Your task to perform on an android device: delete browsing data in the chrome app Image 0: 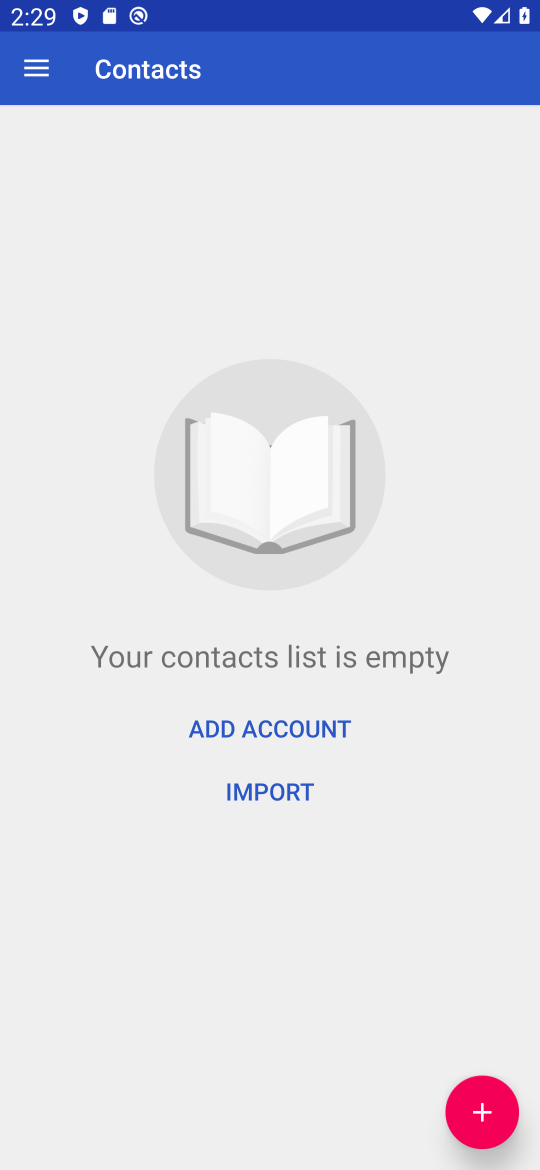
Step 0: press home button
Your task to perform on an android device: delete browsing data in the chrome app Image 1: 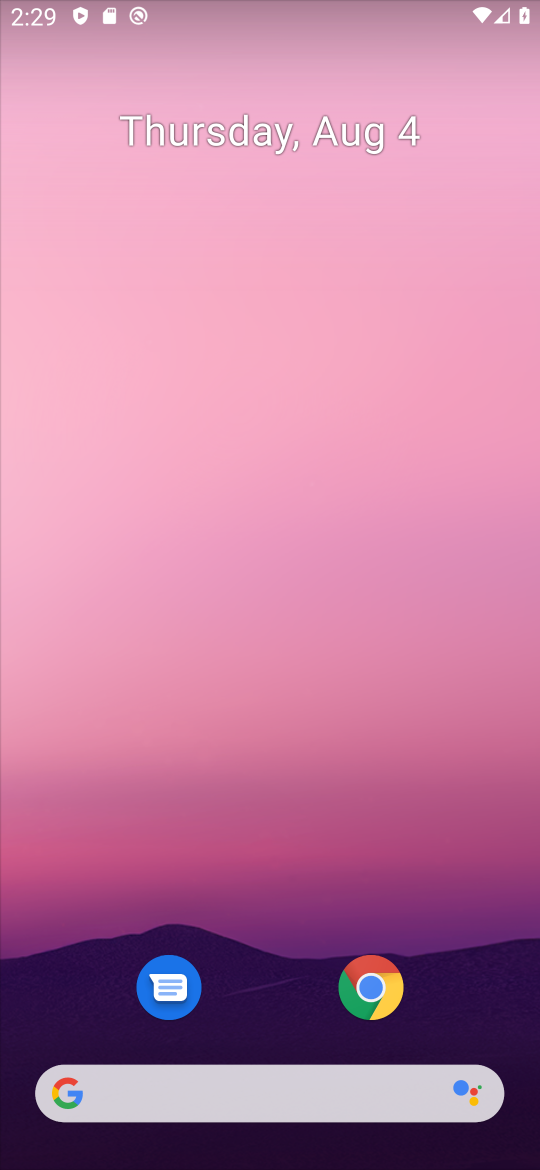
Step 1: drag from (499, 1009) to (190, 31)
Your task to perform on an android device: delete browsing data in the chrome app Image 2: 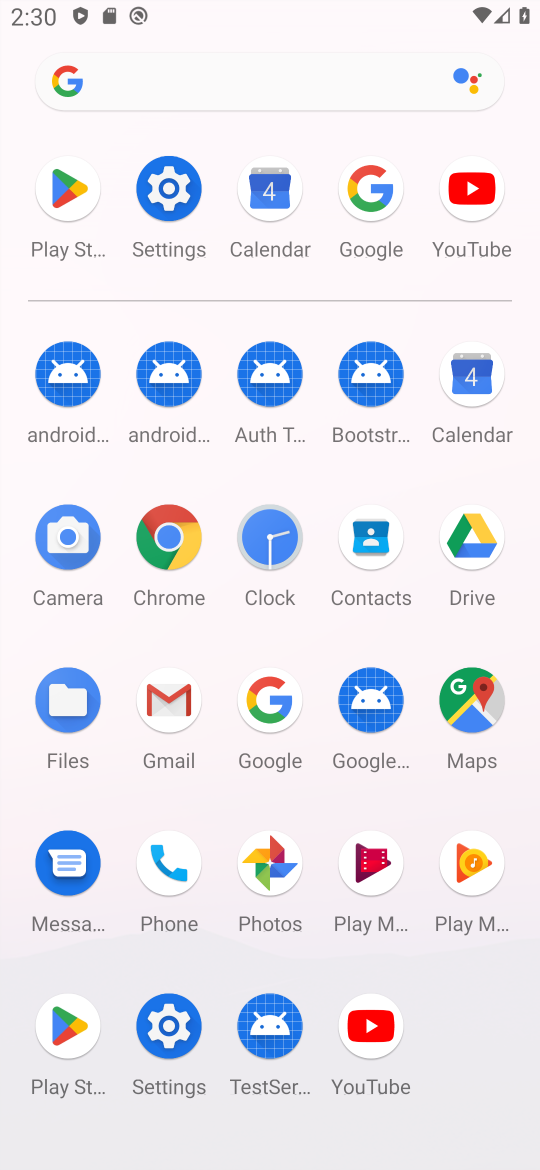
Step 2: click (169, 541)
Your task to perform on an android device: delete browsing data in the chrome app Image 3: 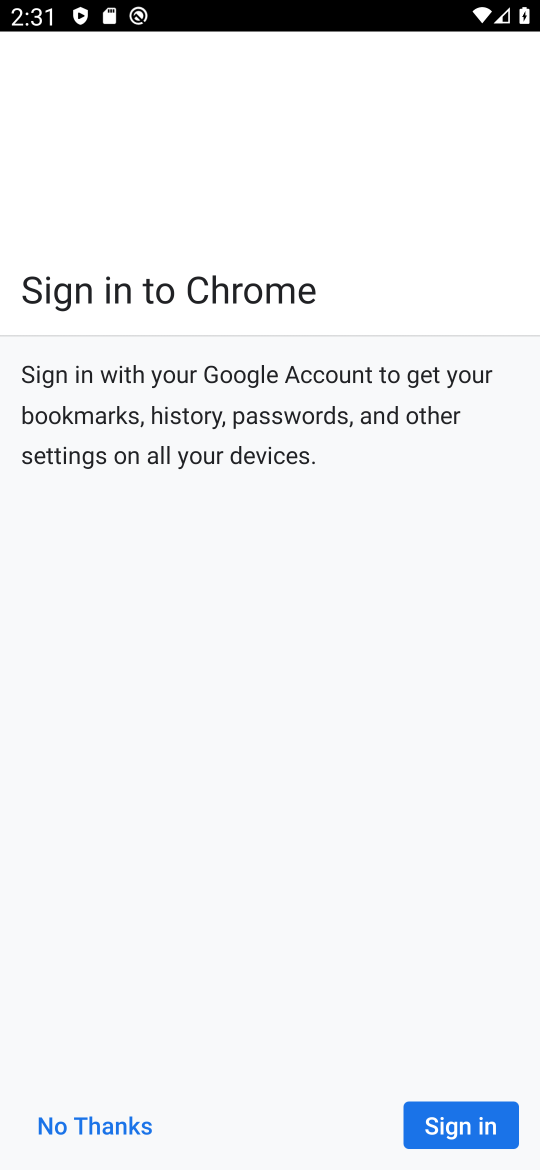
Step 3: task complete